Your task to perform on an android device: Check the weather Image 0: 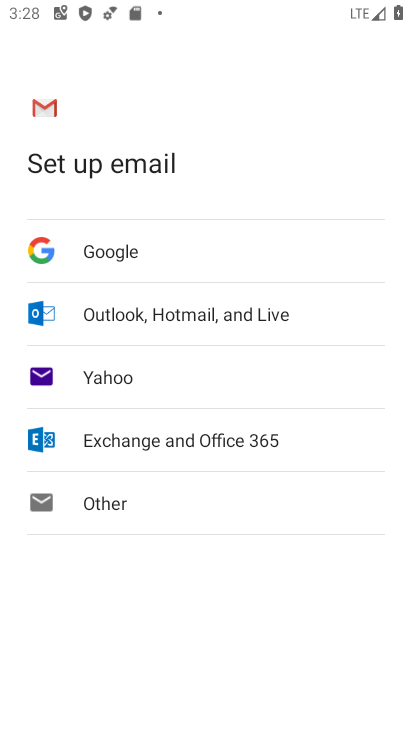
Step 0: press home button
Your task to perform on an android device: Check the weather Image 1: 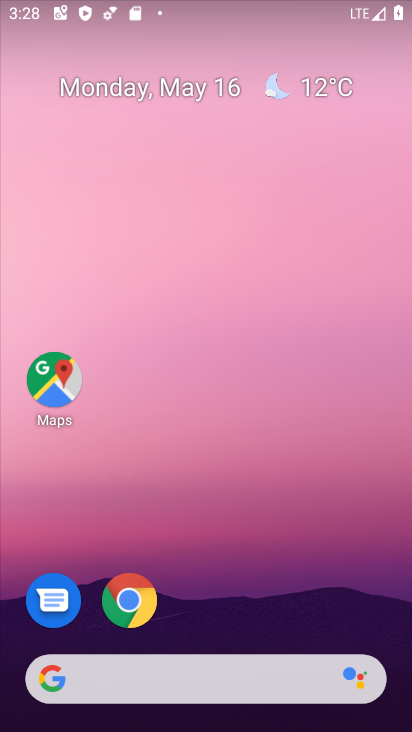
Step 1: click (336, 84)
Your task to perform on an android device: Check the weather Image 2: 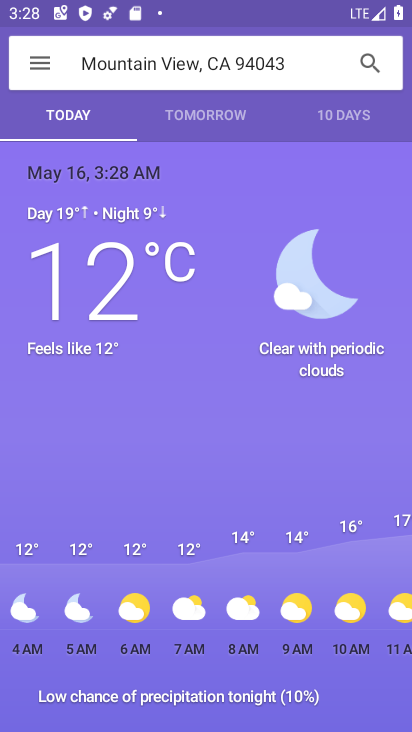
Step 2: task complete